Your task to perform on an android device: move a message to another label in the gmail app Image 0: 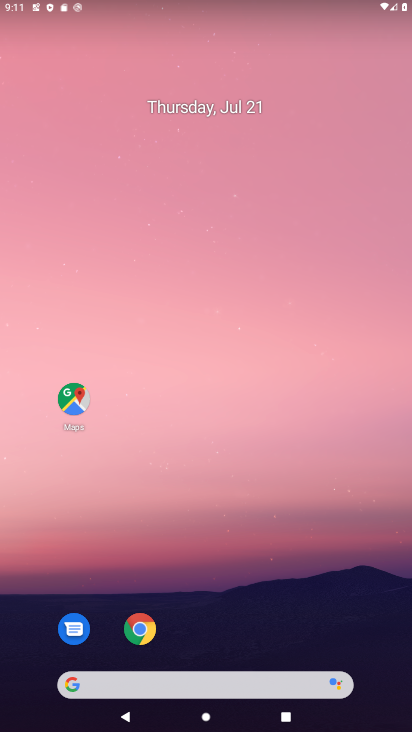
Step 0: drag from (211, 638) to (238, 93)
Your task to perform on an android device: move a message to another label in the gmail app Image 1: 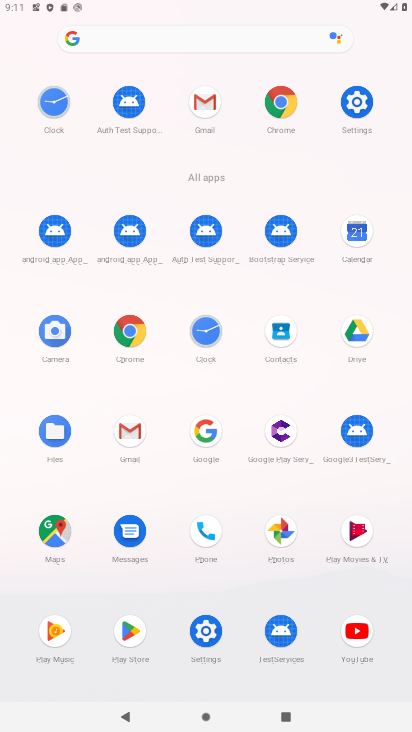
Step 1: click (218, 110)
Your task to perform on an android device: move a message to another label in the gmail app Image 2: 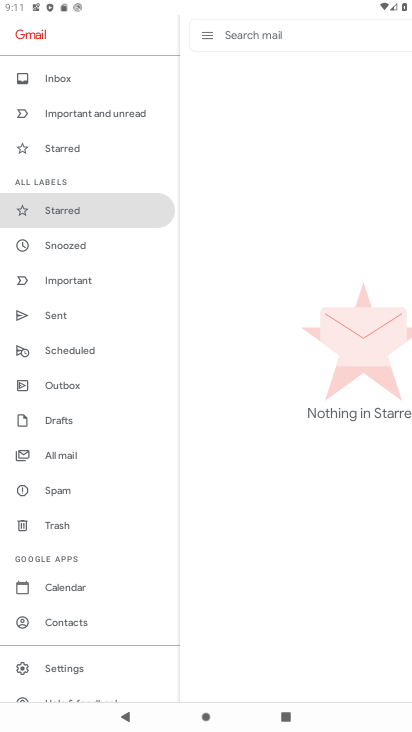
Step 2: click (74, 93)
Your task to perform on an android device: move a message to another label in the gmail app Image 3: 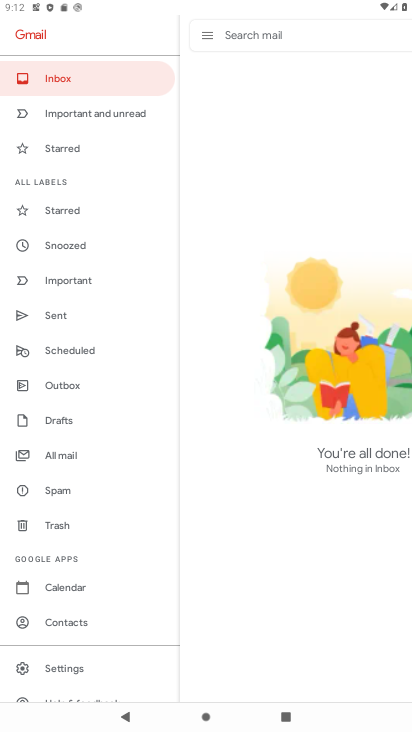
Step 3: task complete